Your task to perform on an android device: Open Google Maps Image 0: 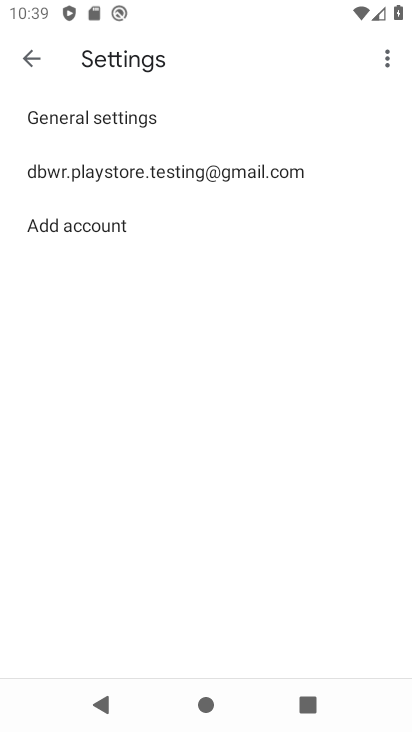
Step 0: click (25, 59)
Your task to perform on an android device: Open Google Maps Image 1: 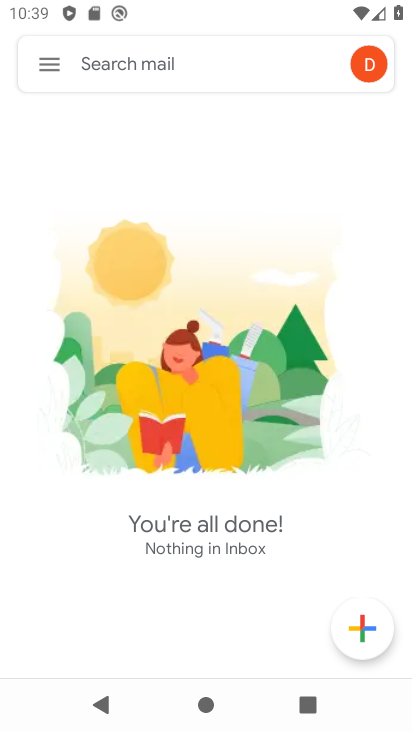
Step 1: press home button
Your task to perform on an android device: Open Google Maps Image 2: 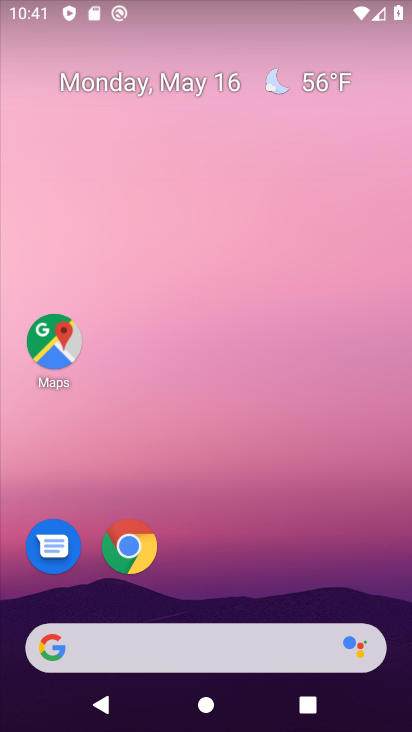
Step 2: drag from (327, 532) to (250, 51)
Your task to perform on an android device: Open Google Maps Image 3: 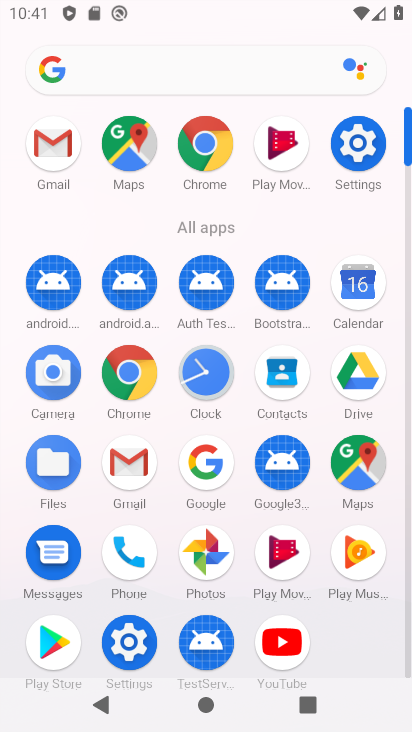
Step 3: click (111, 165)
Your task to perform on an android device: Open Google Maps Image 4: 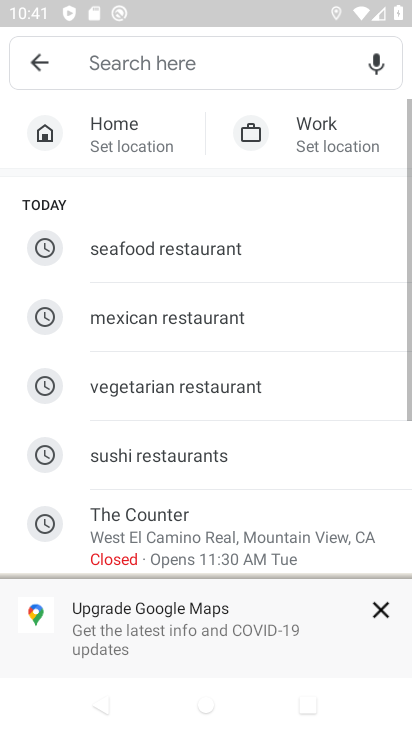
Step 4: task complete